Your task to perform on an android device: Go to internet settings Image 0: 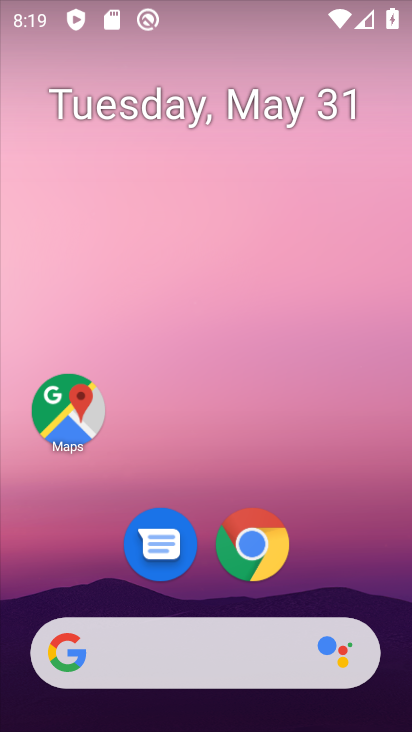
Step 0: drag from (173, 649) to (208, 68)
Your task to perform on an android device: Go to internet settings Image 1: 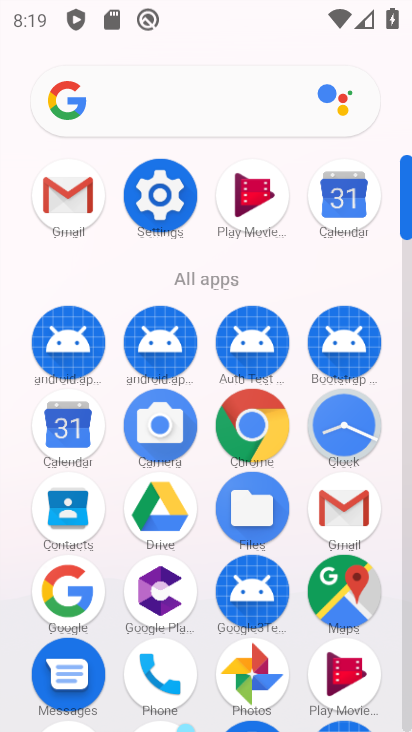
Step 1: click (146, 187)
Your task to perform on an android device: Go to internet settings Image 2: 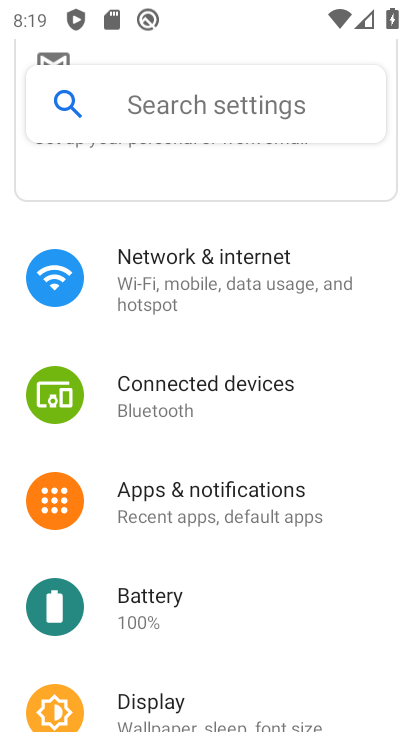
Step 2: click (160, 255)
Your task to perform on an android device: Go to internet settings Image 3: 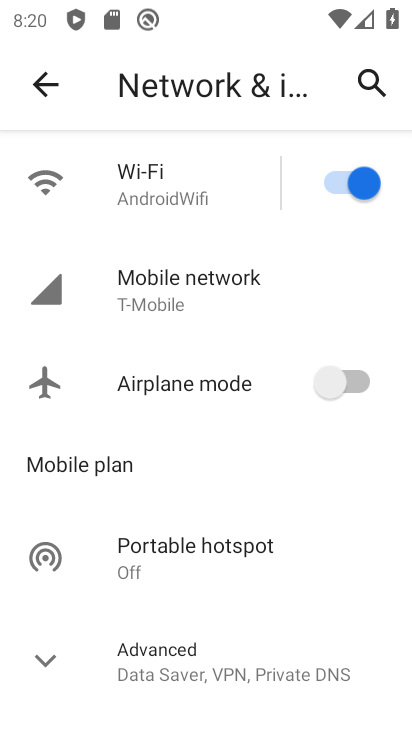
Step 3: task complete